Your task to perform on an android device: Open Google Chrome Image 0: 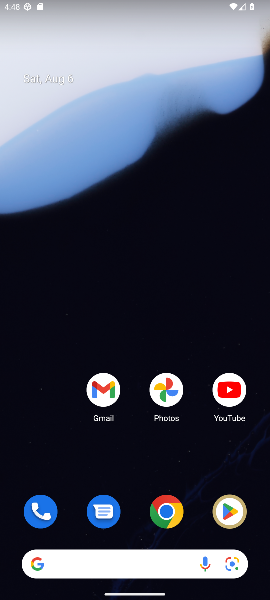
Step 0: click (168, 511)
Your task to perform on an android device: Open Google Chrome Image 1: 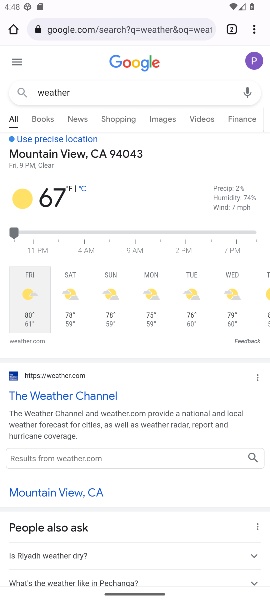
Step 1: task complete